Your task to perform on an android device: Search for "razer kraken" on bestbuy, select the first entry, add it to the cart, then select checkout. Image 0: 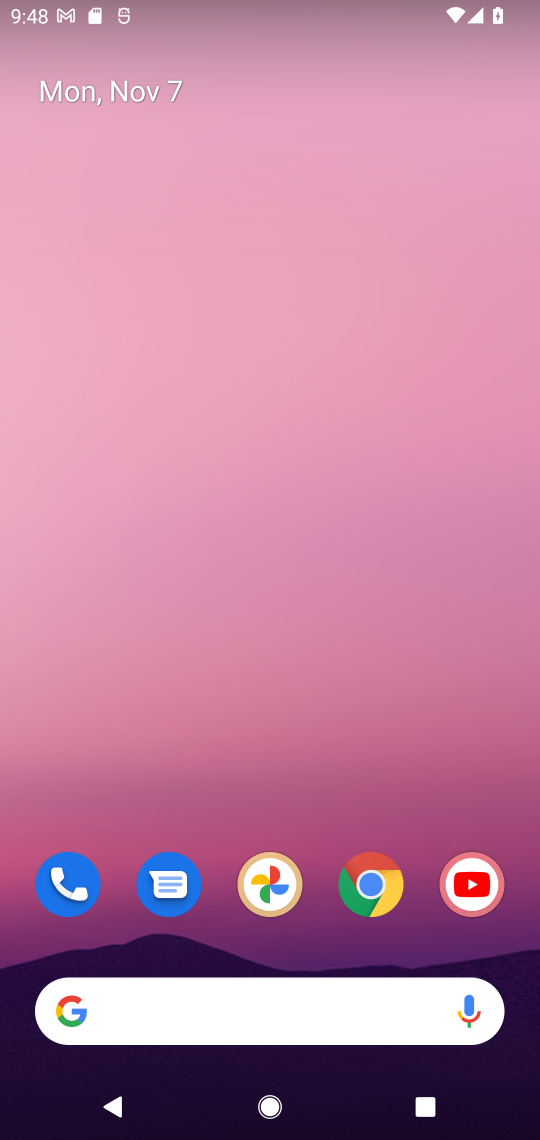
Step 0: click (354, 886)
Your task to perform on an android device: Search for "razer kraken" on bestbuy, select the first entry, add it to the cart, then select checkout. Image 1: 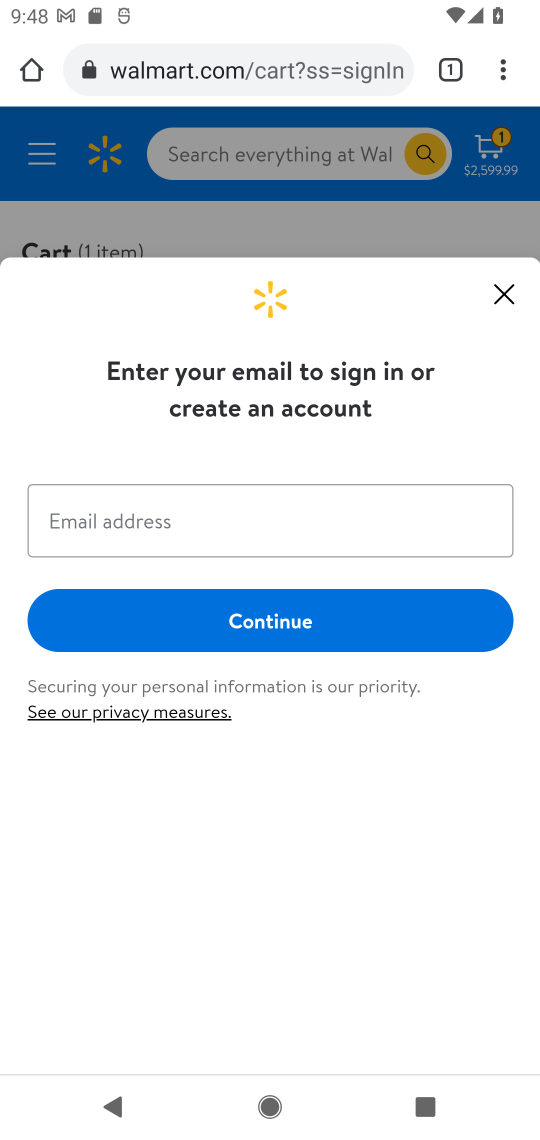
Step 1: click (326, 56)
Your task to perform on an android device: Search for "razer kraken" on bestbuy, select the first entry, add it to the cart, then select checkout. Image 2: 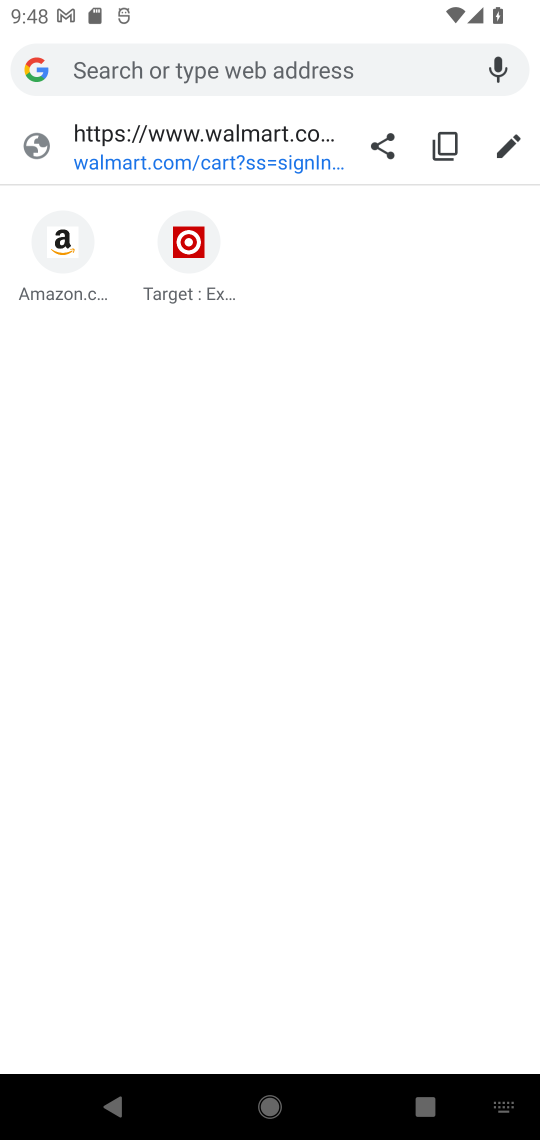
Step 2: type "bestbuy"
Your task to perform on an android device: Search for "razer kraken" on bestbuy, select the first entry, add it to the cart, then select checkout. Image 3: 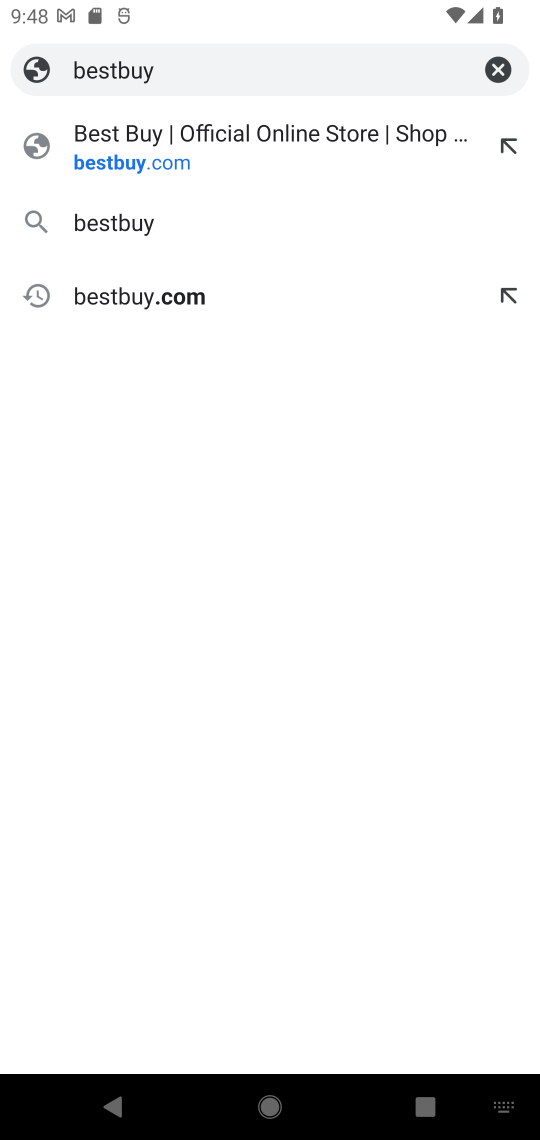
Step 3: click (176, 296)
Your task to perform on an android device: Search for "razer kraken" on bestbuy, select the first entry, add it to the cart, then select checkout. Image 4: 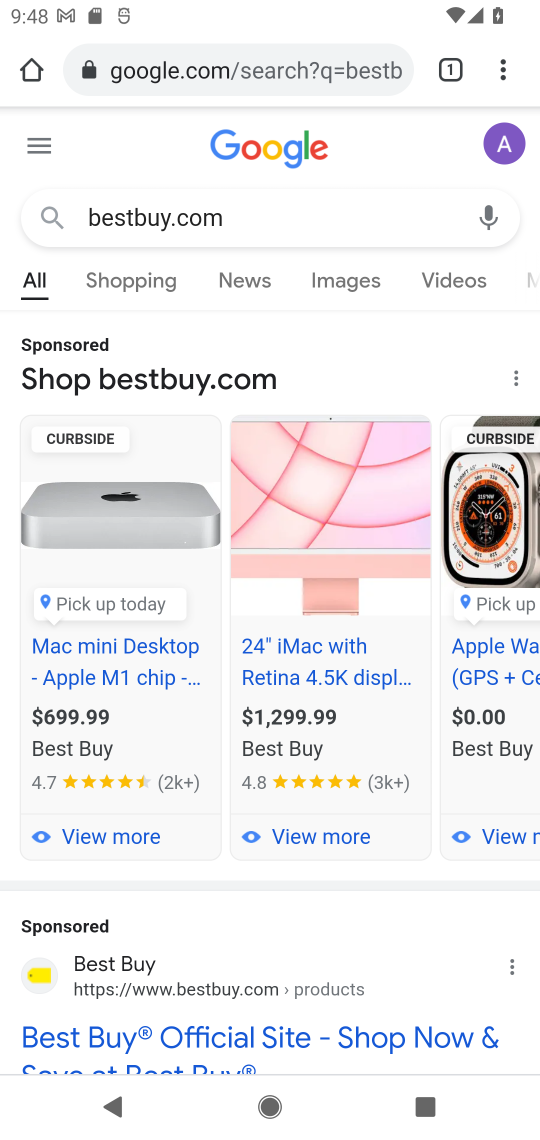
Step 4: click (249, 981)
Your task to perform on an android device: Search for "razer kraken" on bestbuy, select the first entry, add it to the cart, then select checkout. Image 5: 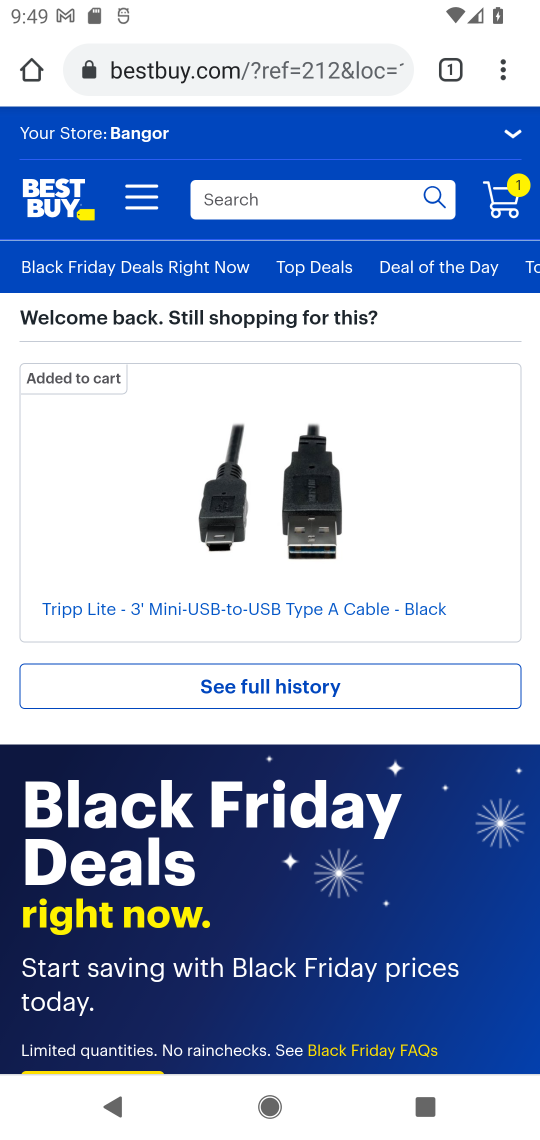
Step 5: click (329, 200)
Your task to perform on an android device: Search for "razer kraken" on bestbuy, select the first entry, add it to the cart, then select checkout. Image 6: 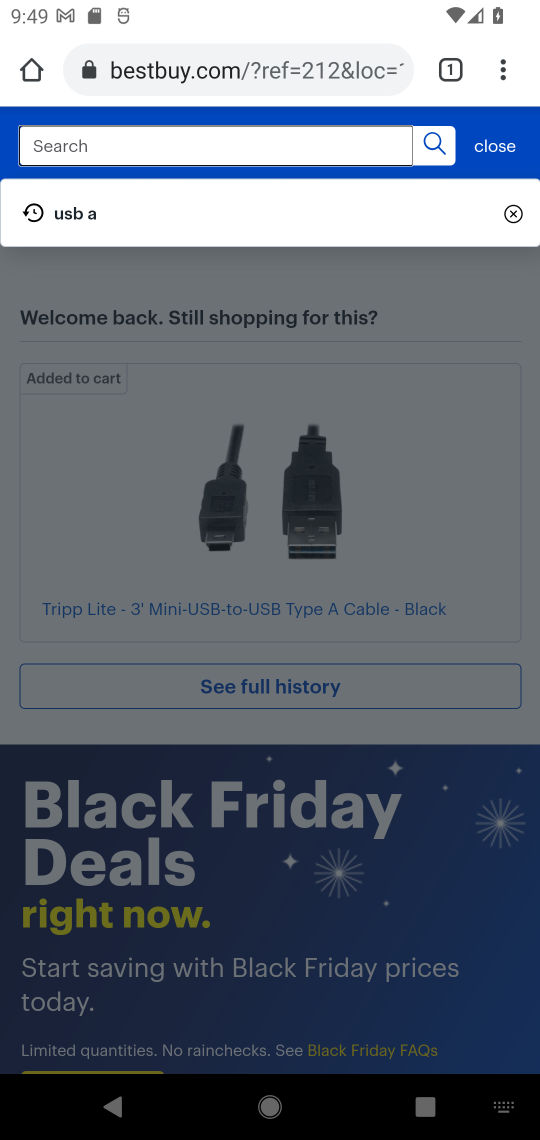
Step 6: type "razer kraken"
Your task to perform on an android device: Search for "razer kraken" on bestbuy, select the first entry, add it to the cart, then select checkout. Image 7: 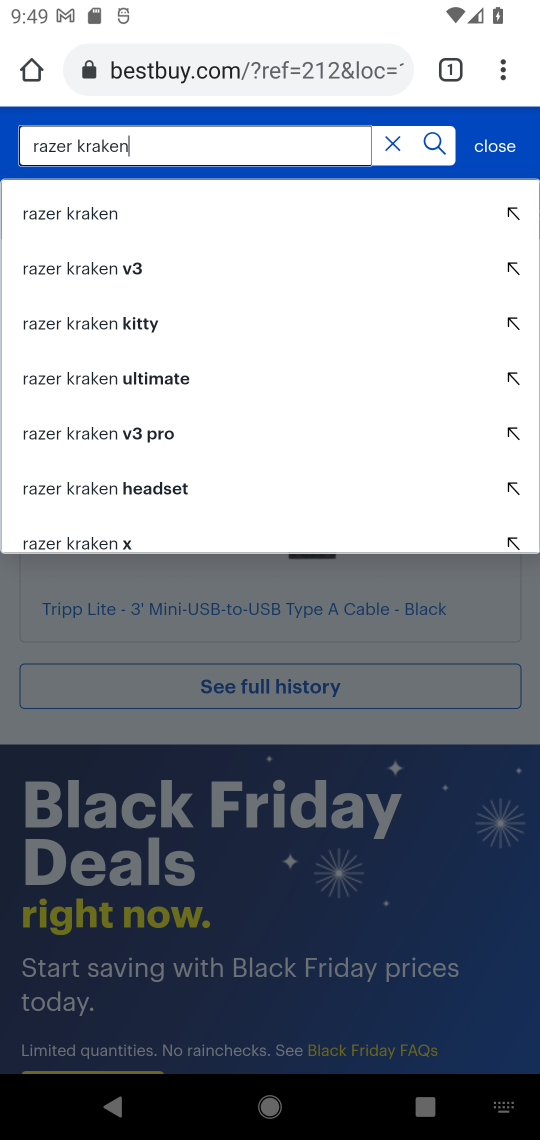
Step 7: click (36, 220)
Your task to perform on an android device: Search for "razer kraken" on bestbuy, select the first entry, add it to the cart, then select checkout. Image 8: 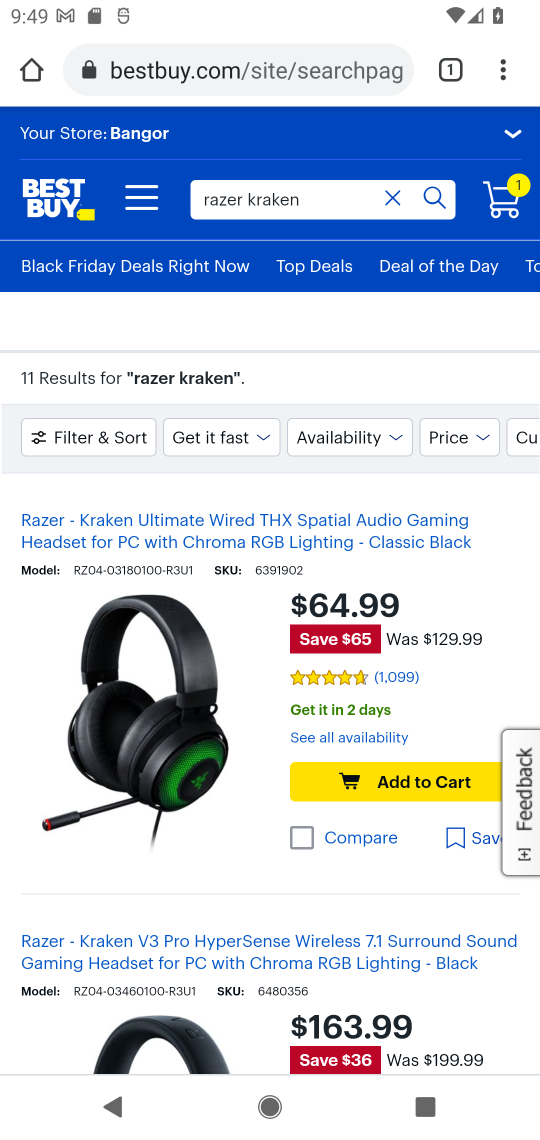
Step 8: click (216, 524)
Your task to perform on an android device: Search for "razer kraken" on bestbuy, select the first entry, add it to the cart, then select checkout. Image 9: 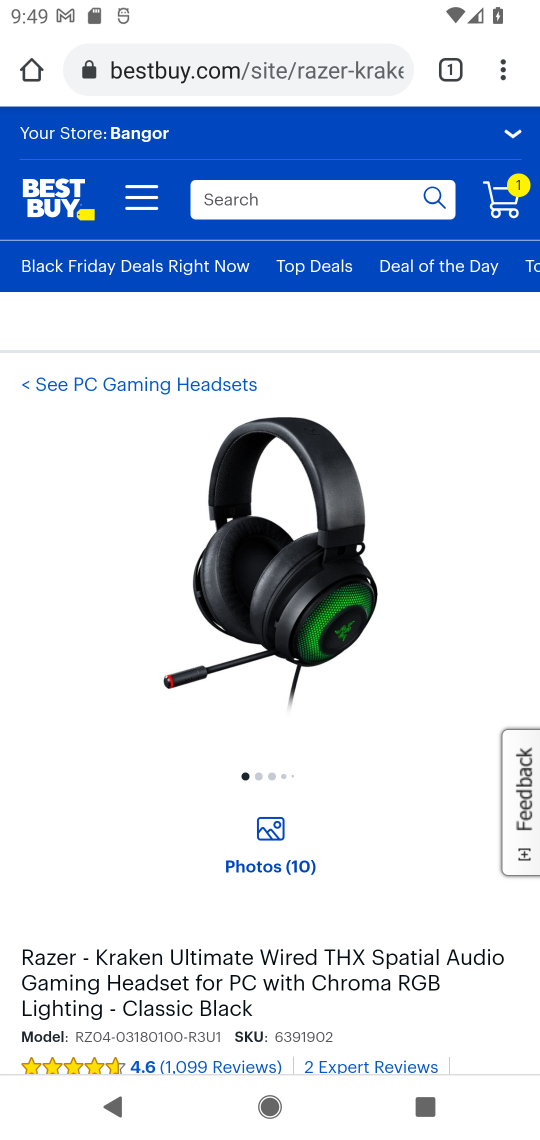
Step 9: drag from (392, 873) to (449, 298)
Your task to perform on an android device: Search for "razer kraken" on bestbuy, select the first entry, add it to the cart, then select checkout. Image 10: 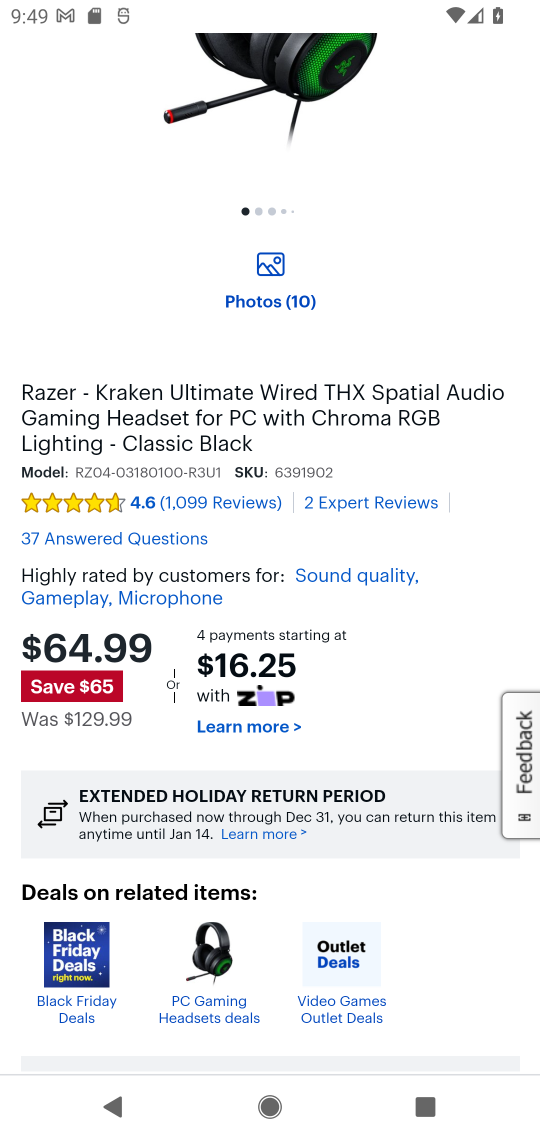
Step 10: drag from (462, 822) to (419, 341)
Your task to perform on an android device: Search for "razer kraken" on bestbuy, select the first entry, add it to the cart, then select checkout. Image 11: 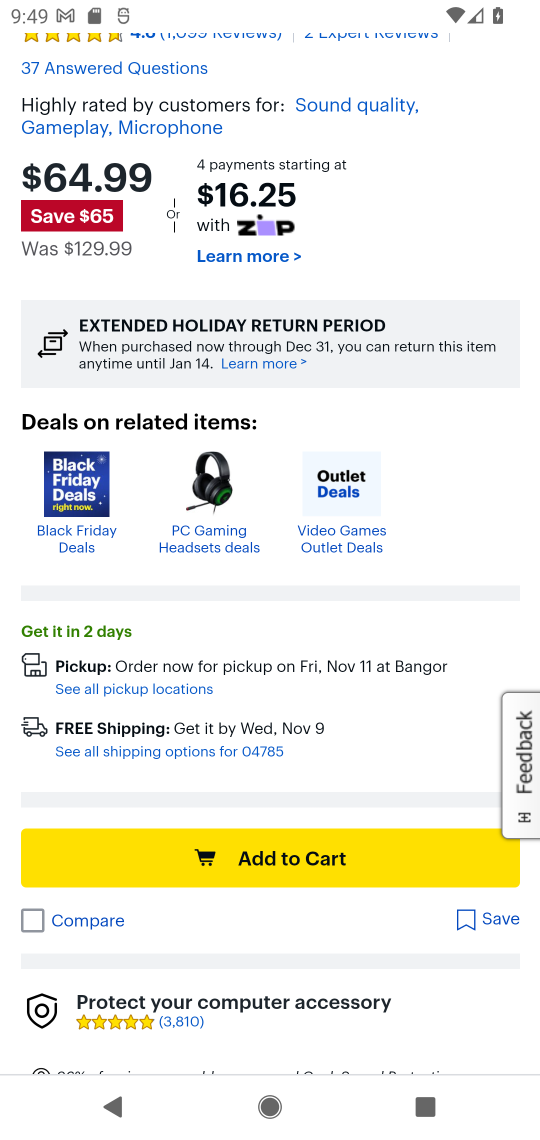
Step 11: click (317, 854)
Your task to perform on an android device: Search for "razer kraken" on bestbuy, select the first entry, add it to the cart, then select checkout. Image 12: 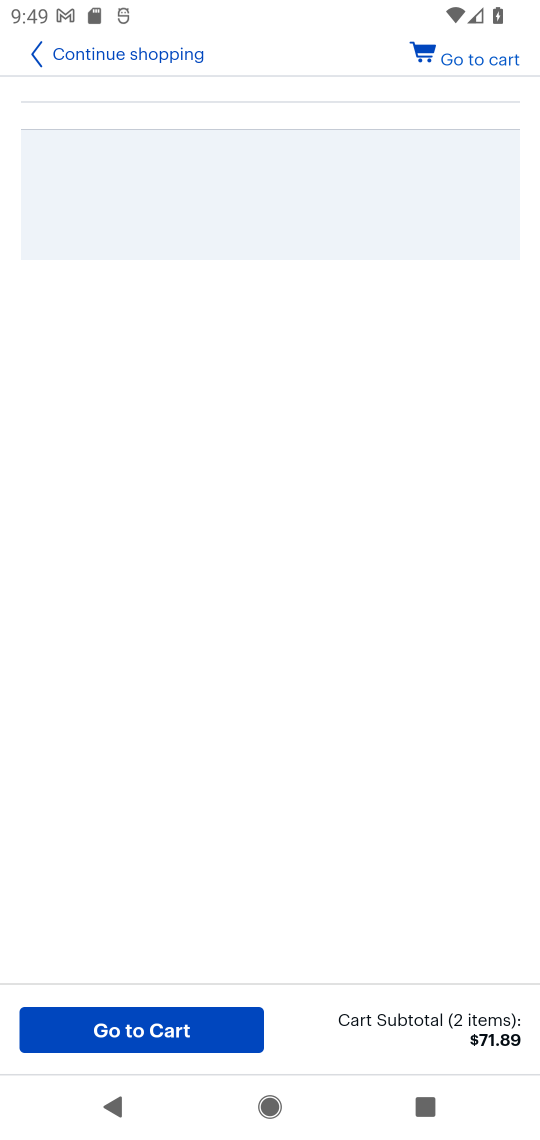
Step 12: click (140, 1023)
Your task to perform on an android device: Search for "razer kraken" on bestbuy, select the first entry, add it to the cart, then select checkout. Image 13: 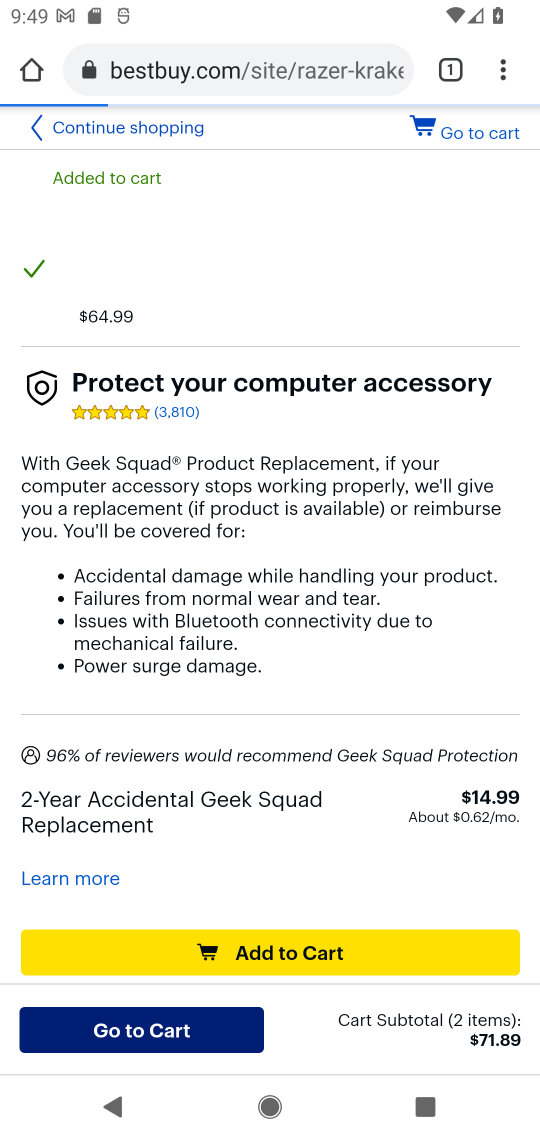
Step 13: click (165, 1033)
Your task to perform on an android device: Search for "razer kraken" on bestbuy, select the first entry, add it to the cart, then select checkout. Image 14: 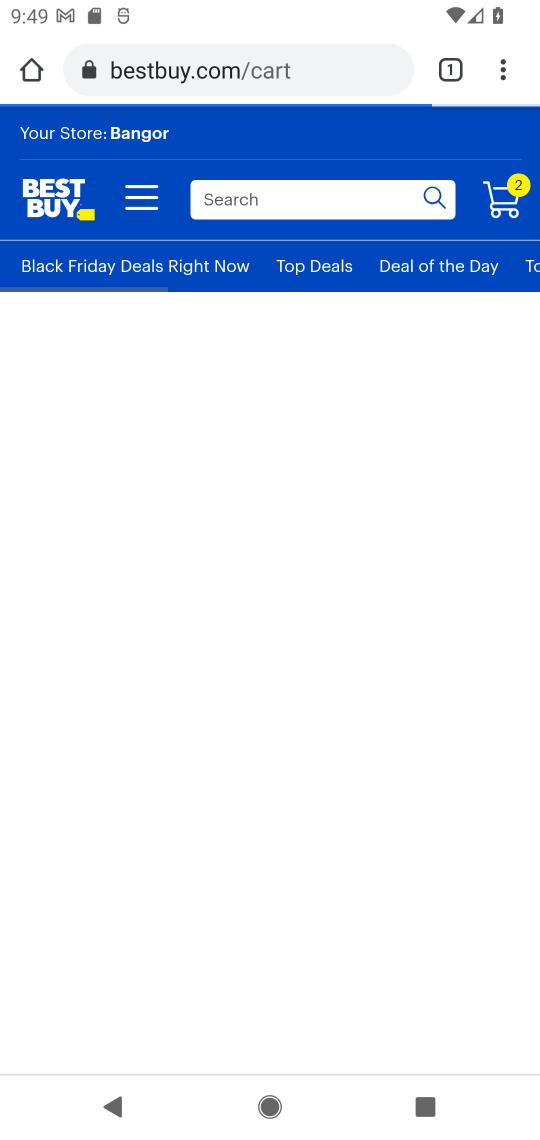
Step 14: drag from (346, 333) to (421, 1039)
Your task to perform on an android device: Search for "razer kraken" on bestbuy, select the first entry, add it to the cart, then select checkout. Image 15: 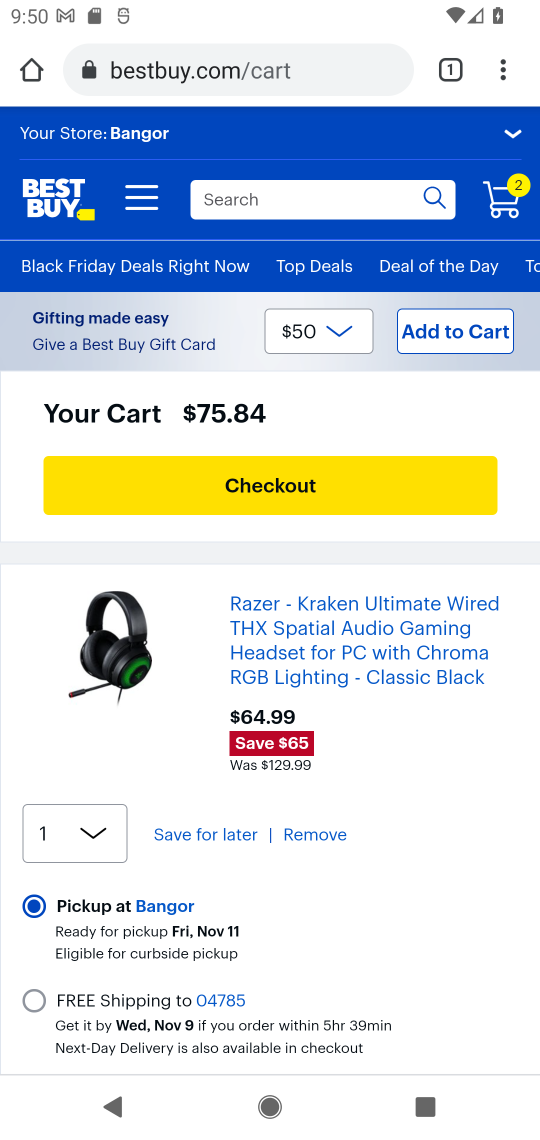
Step 15: click (303, 482)
Your task to perform on an android device: Search for "razer kraken" on bestbuy, select the first entry, add it to the cart, then select checkout. Image 16: 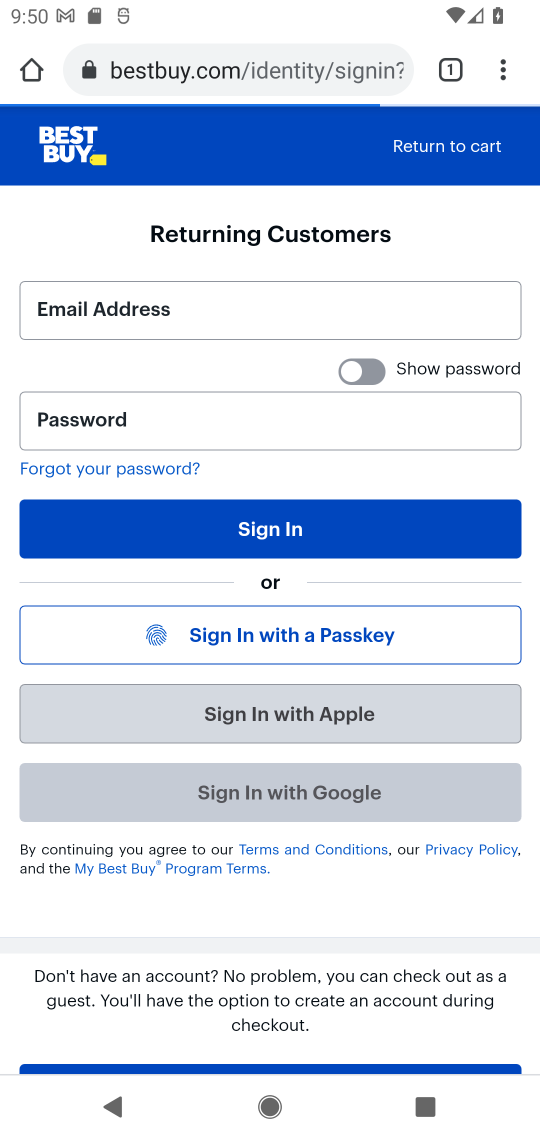
Step 16: task complete